Your task to perform on an android device: turn vacation reply on in the gmail app Image 0: 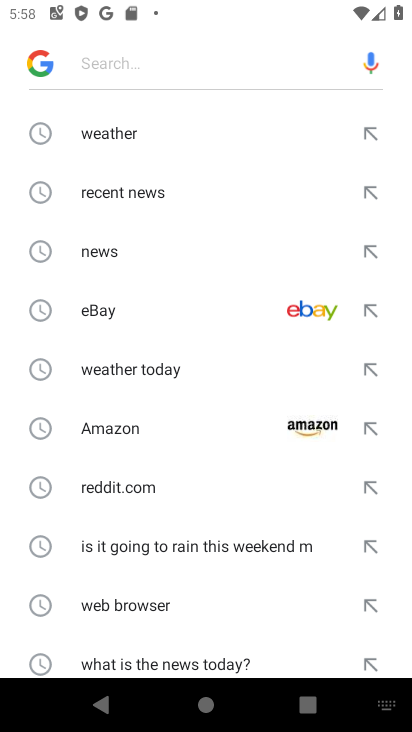
Step 0: press home button
Your task to perform on an android device: turn vacation reply on in the gmail app Image 1: 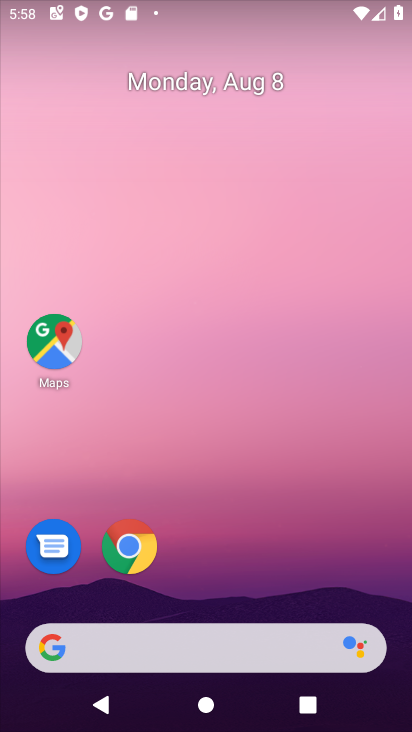
Step 1: drag from (214, 575) to (192, 161)
Your task to perform on an android device: turn vacation reply on in the gmail app Image 2: 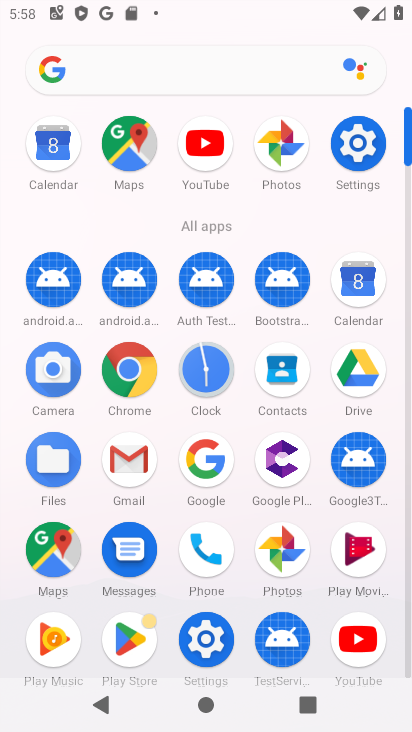
Step 2: click (139, 461)
Your task to perform on an android device: turn vacation reply on in the gmail app Image 3: 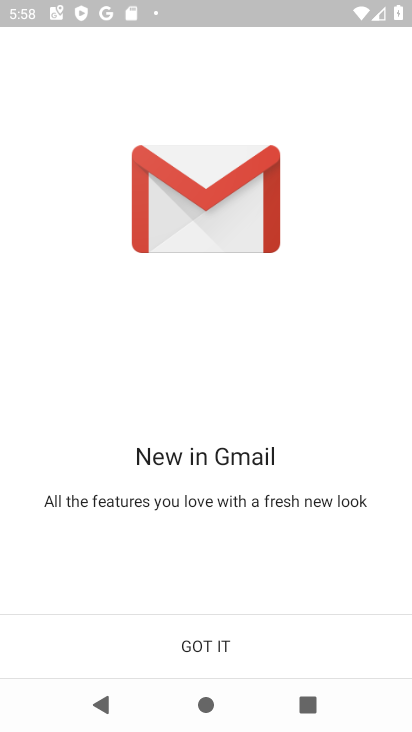
Step 3: click (219, 631)
Your task to perform on an android device: turn vacation reply on in the gmail app Image 4: 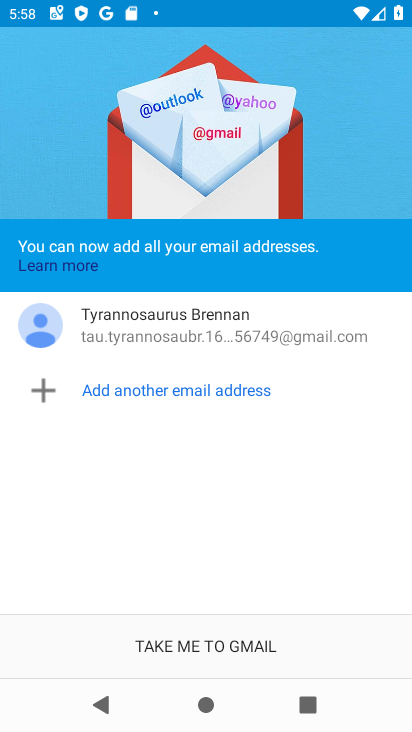
Step 4: click (219, 626)
Your task to perform on an android device: turn vacation reply on in the gmail app Image 5: 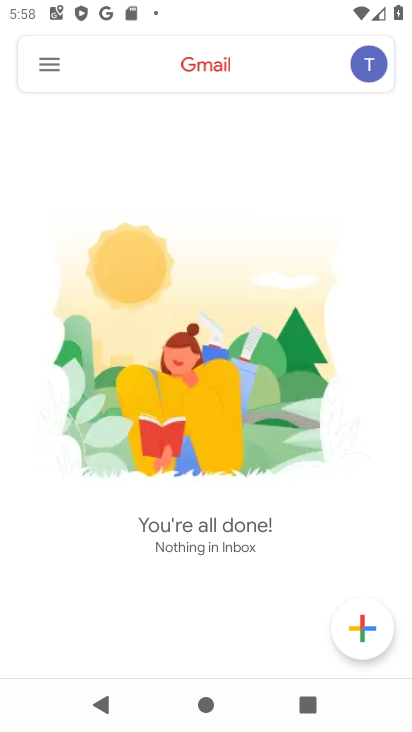
Step 5: click (51, 60)
Your task to perform on an android device: turn vacation reply on in the gmail app Image 6: 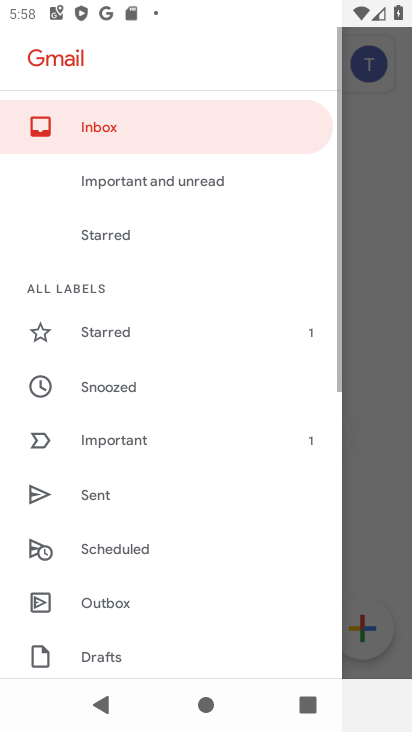
Step 6: drag from (153, 541) to (155, 141)
Your task to perform on an android device: turn vacation reply on in the gmail app Image 7: 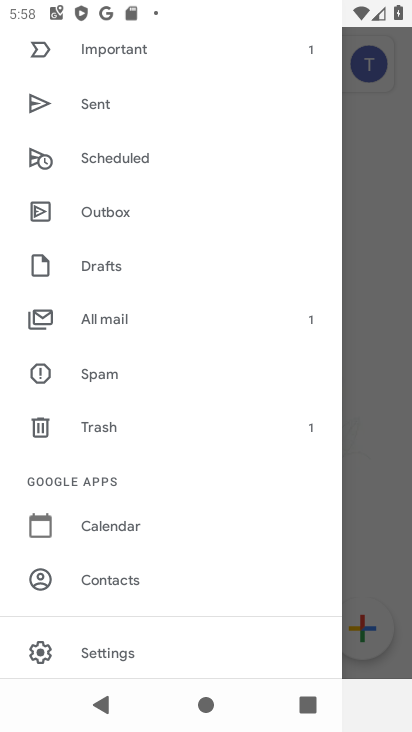
Step 7: click (117, 648)
Your task to perform on an android device: turn vacation reply on in the gmail app Image 8: 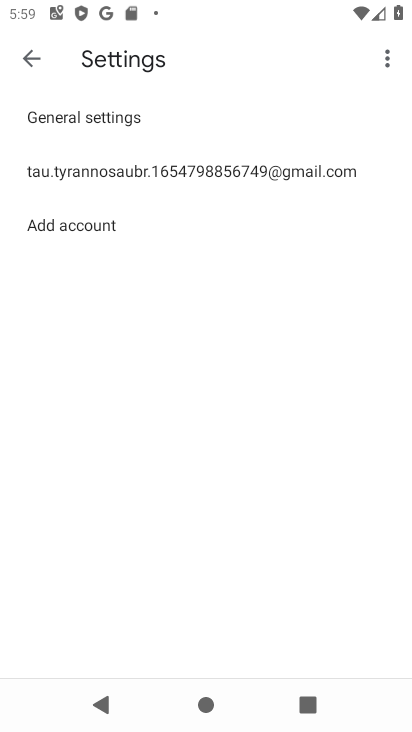
Step 8: click (174, 166)
Your task to perform on an android device: turn vacation reply on in the gmail app Image 9: 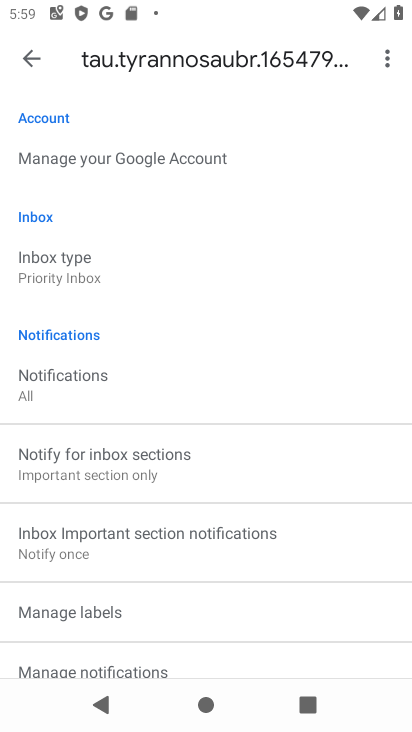
Step 9: drag from (168, 675) to (183, 282)
Your task to perform on an android device: turn vacation reply on in the gmail app Image 10: 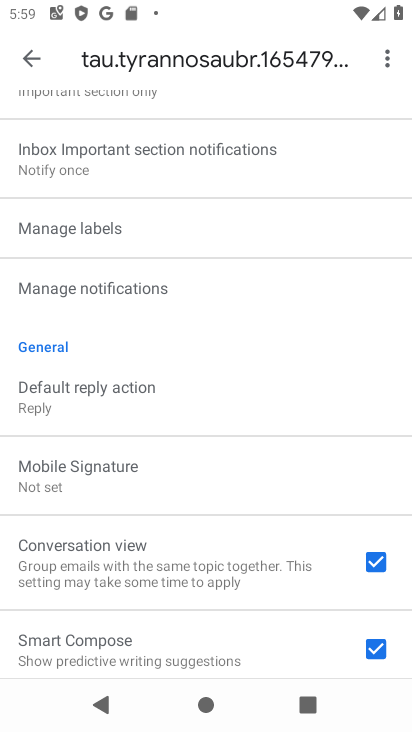
Step 10: drag from (153, 556) to (186, 230)
Your task to perform on an android device: turn vacation reply on in the gmail app Image 11: 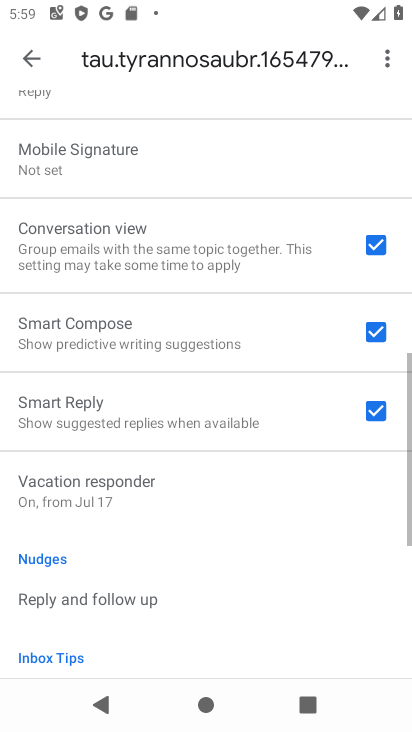
Step 11: click (119, 491)
Your task to perform on an android device: turn vacation reply on in the gmail app Image 12: 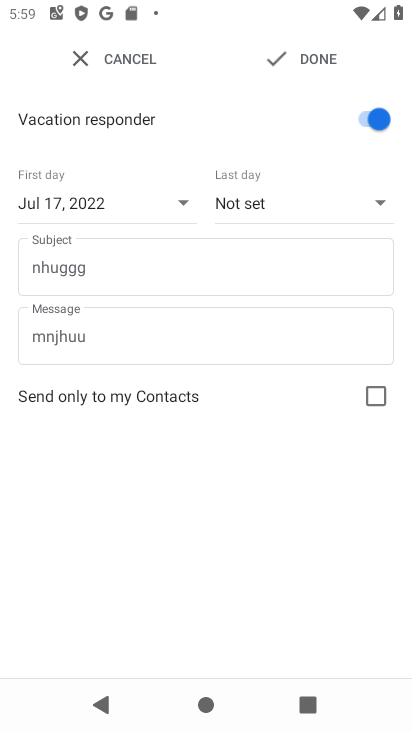
Step 12: task complete